Your task to perform on an android device: Open calendar and show me the first week of next month Image 0: 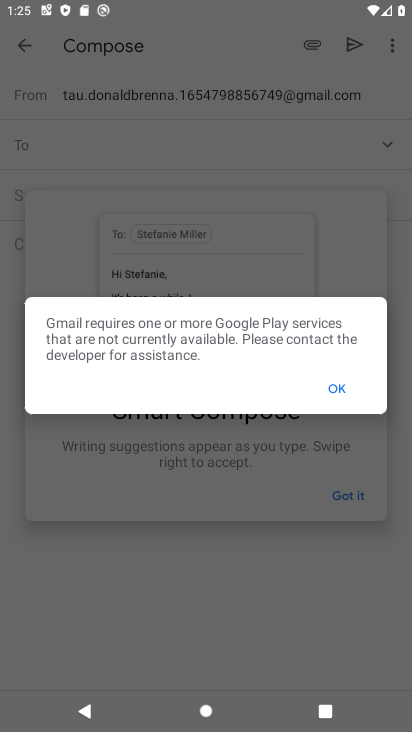
Step 0: press home button
Your task to perform on an android device: Open calendar and show me the first week of next month Image 1: 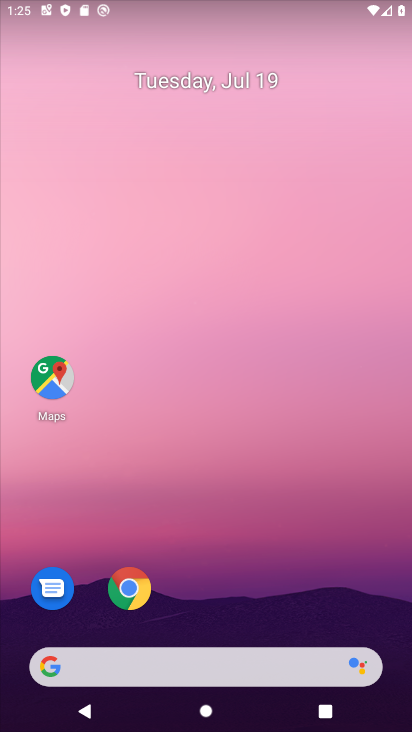
Step 1: drag from (133, 423) to (235, 65)
Your task to perform on an android device: Open calendar and show me the first week of next month Image 2: 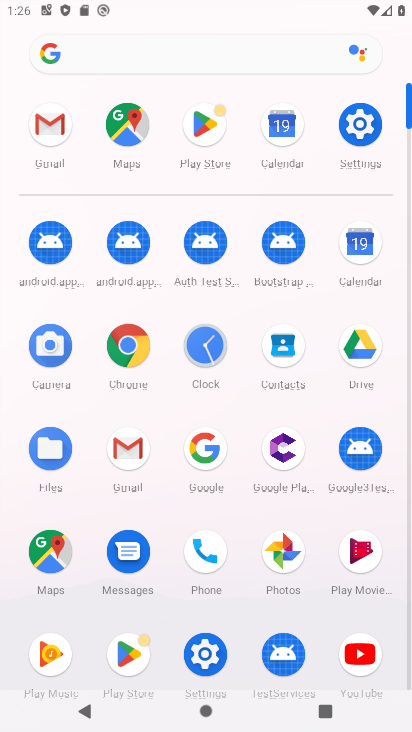
Step 2: click (351, 247)
Your task to perform on an android device: Open calendar and show me the first week of next month Image 3: 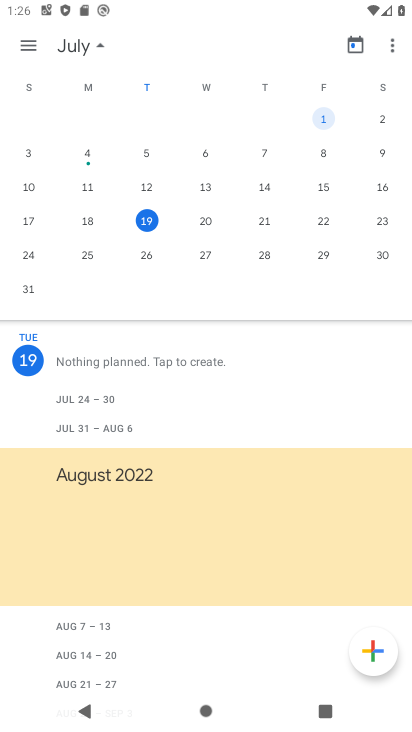
Step 3: drag from (366, 142) to (6, 91)
Your task to perform on an android device: Open calendar and show me the first week of next month Image 4: 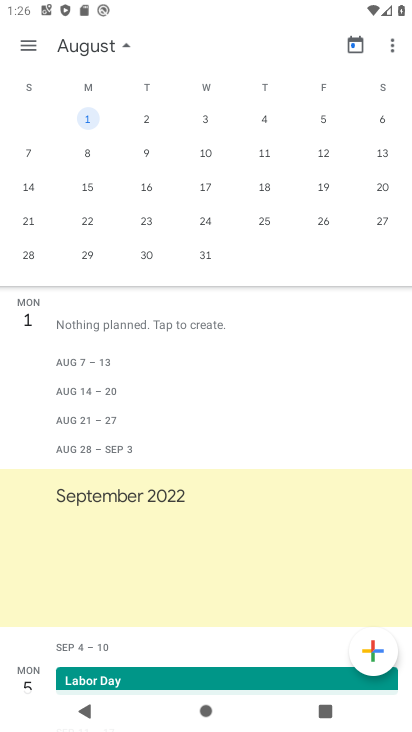
Step 4: click (85, 111)
Your task to perform on an android device: Open calendar and show me the first week of next month Image 5: 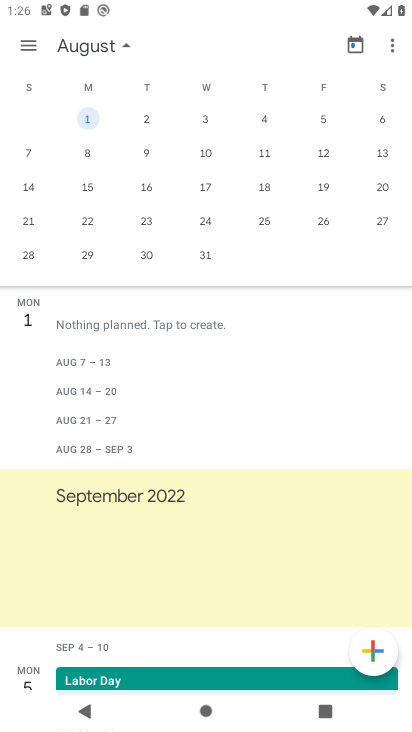
Step 5: task complete